Your task to perform on an android device: turn on showing notifications on the lock screen Image 0: 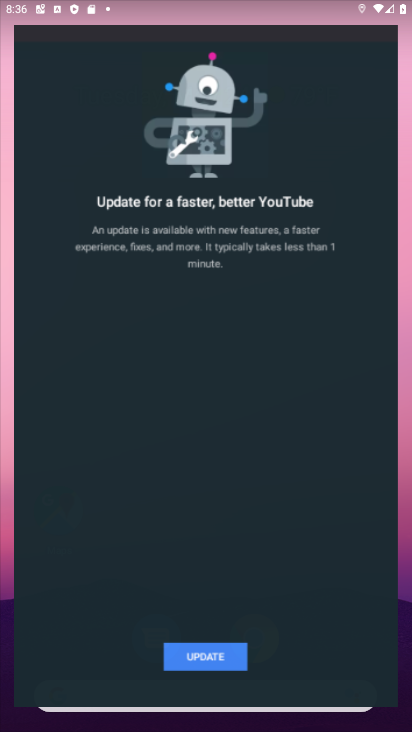
Step 0: drag from (158, 728) to (287, 0)
Your task to perform on an android device: turn on showing notifications on the lock screen Image 1: 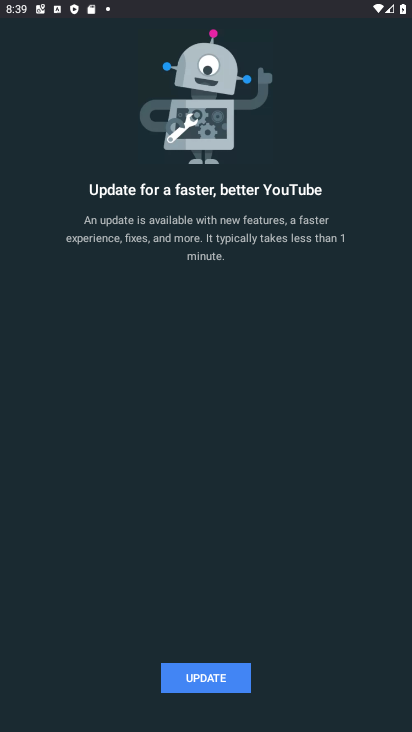
Step 1: press home button
Your task to perform on an android device: turn on showing notifications on the lock screen Image 2: 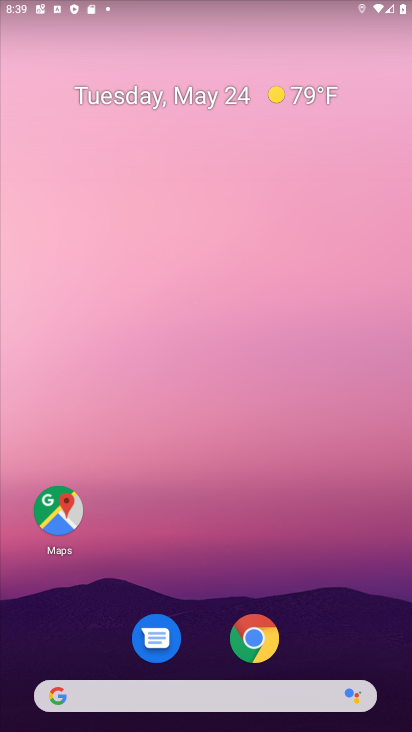
Step 2: drag from (238, 659) to (168, 52)
Your task to perform on an android device: turn on showing notifications on the lock screen Image 3: 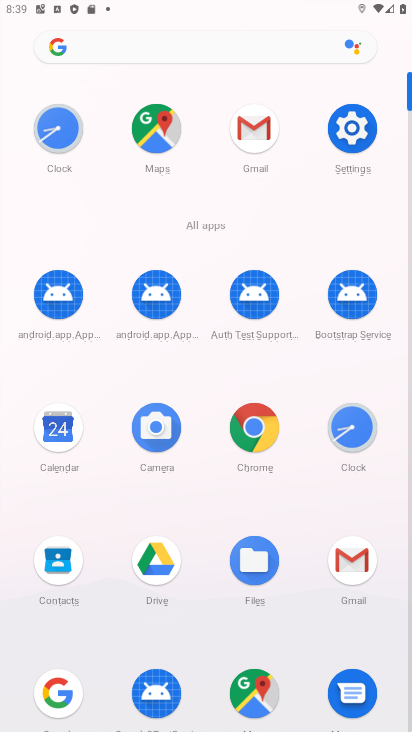
Step 3: click (361, 106)
Your task to perform on an android device: turn on showing notifications on the lock screen Image 4: 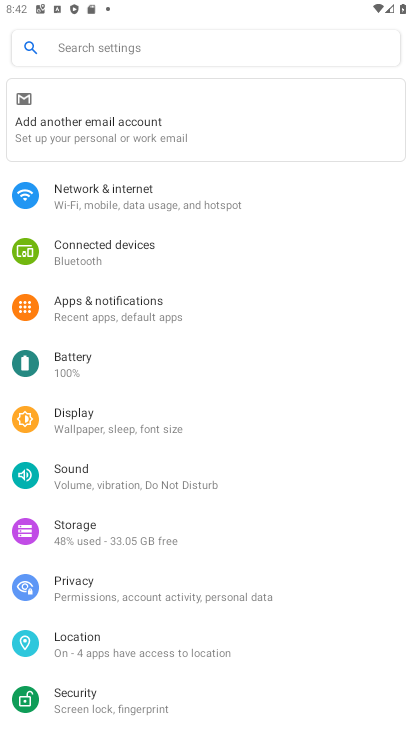
Step 4: click (117, 300)
Your task to perform on an android device: turn on showing notifications on the lock screen Image 5: 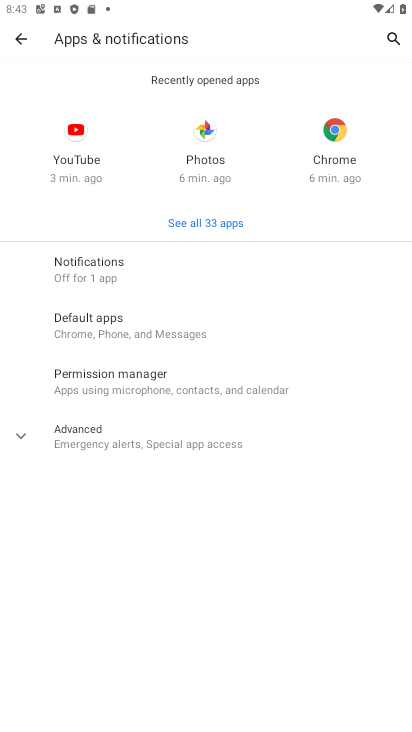
Step 5: click (107, 264)
Your task to perform on an android device: turn on showing notifications on the lock screen Image 6: 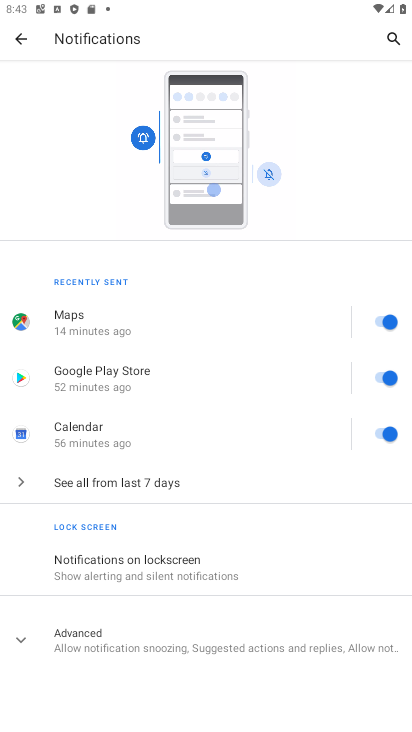
Step 6: click (190, 562)
Your task to perform on an android device: turn on showing notifications on the lock screen Image 7: 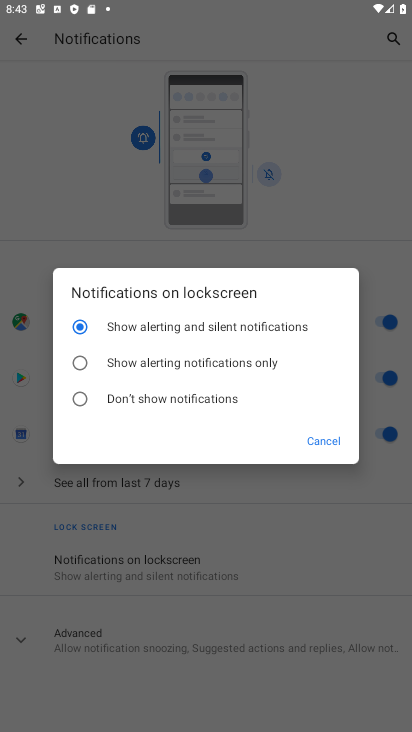
Step 7: task complete